Your task to perform on an android device: Open Google Maps and go to "Timeline" Image 0: 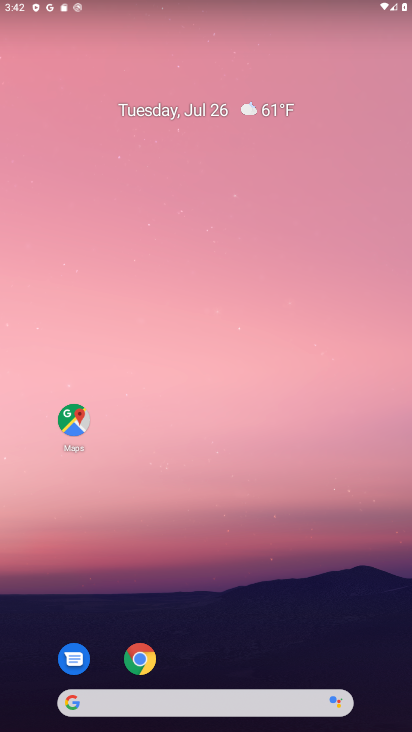
Step 0: drag from (322, 595) to (322, 55)
Your task to perform on an android device: Open Google Maps and go to "Timeline" Image 1: 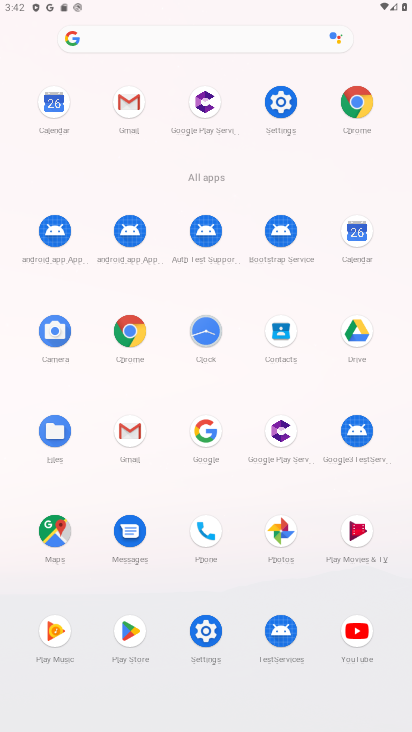
Step 1: click (50, 525)
Your task to perform on an android device: Open Google Maps and go to "Timeline" Image 2: 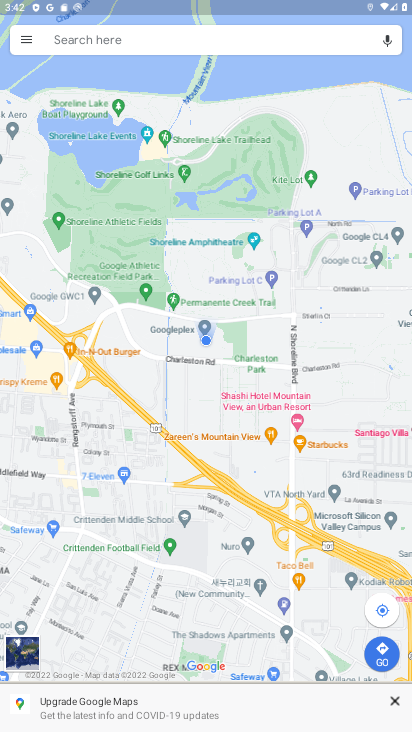
Step 2: click (29, 36)
Your task to perform on an android device: Open Google Maps and go to "Timeline" Image 3: 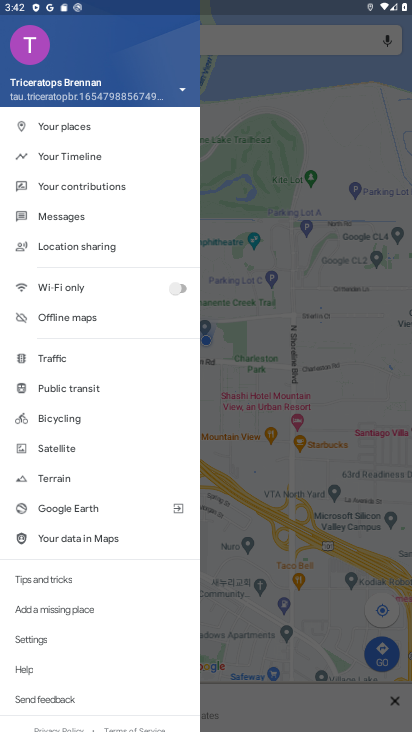
Step 3: click (81, 157)
Your task to perform on an android device: Open Google Maps and go to "Timeline" Image 4: 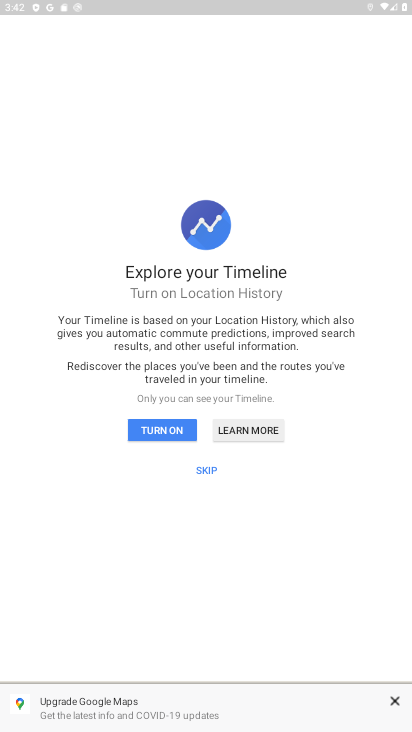
Step 4: click (156, 428)
Your task to perform on an android device: Open Google Maps and go to "Timeline" Image 5: 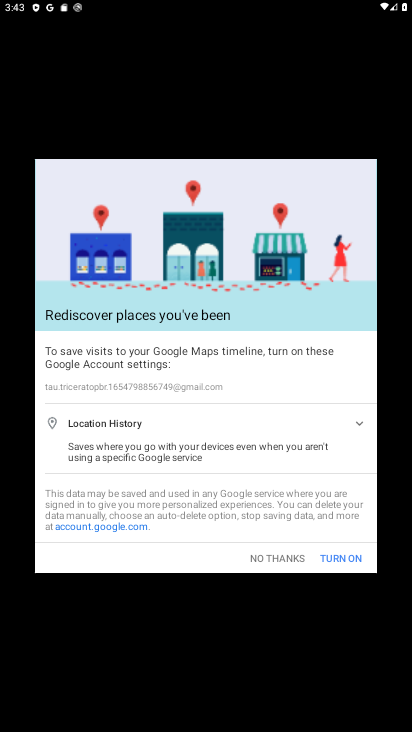
Step 5: click (329, 553)
Your task to perform on an android device: Open Google Maps and go to "Timeline" Image 6: 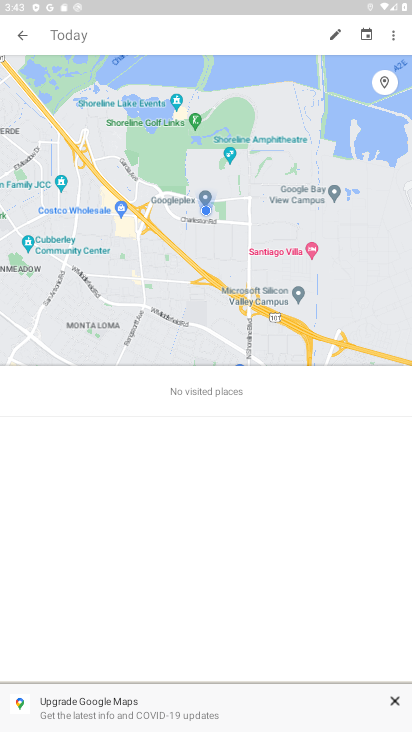
Step 6: task complete